Your task to perform on an android device: Clear the shopping cart on ebay. Image 0: 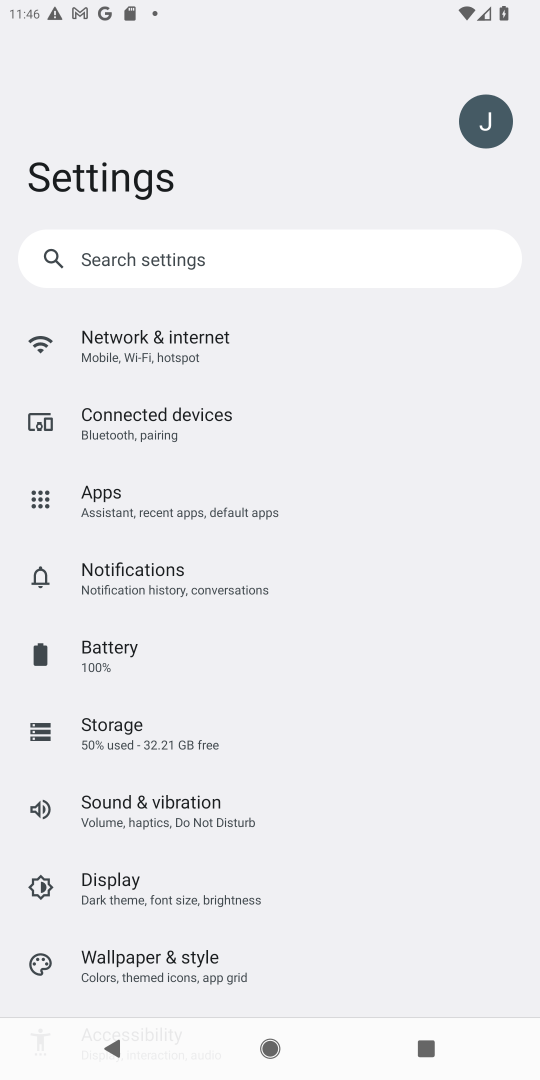
Step 0: press home button
Your task to perform on an android device: Clear the shopping cart on ebay. Image 1: 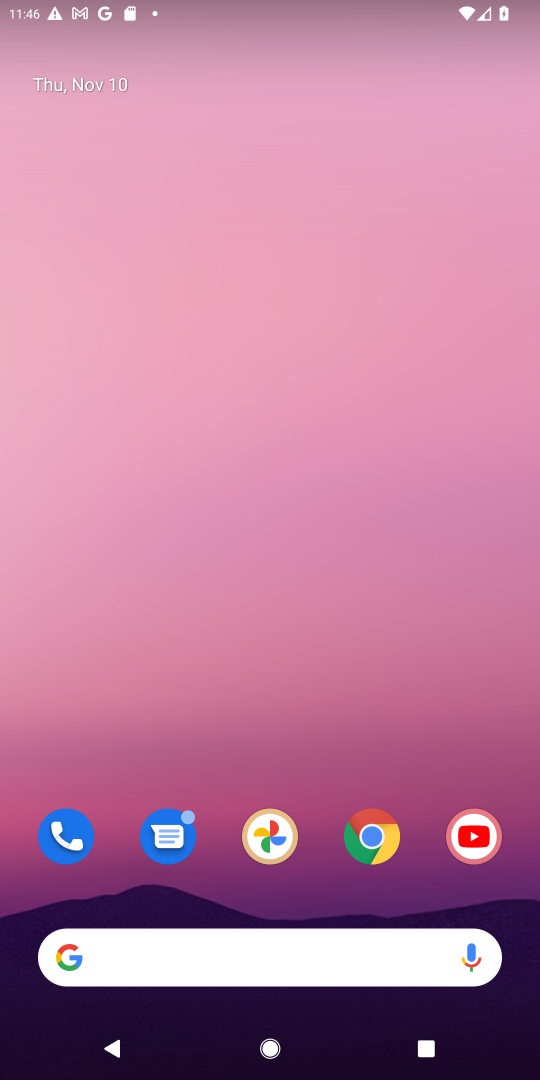
Step 1: click (271, 945)
Your task to perform on an android device: Clear the shopping cart on ebay. Image 2: 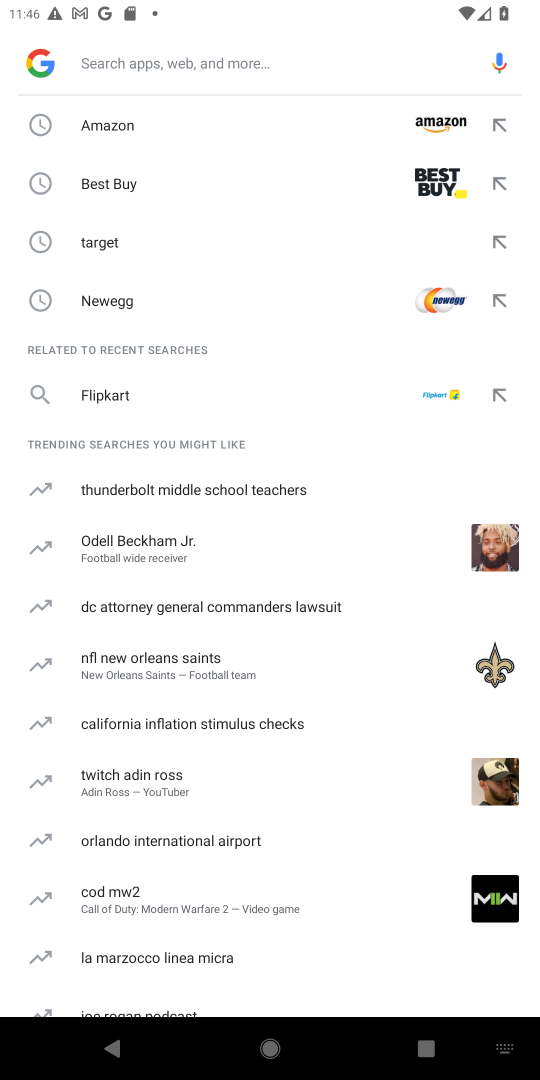
Step 2: type "ebay"
Your task to perform on an android device: Clear the shopping cart on ebay. Image 3: 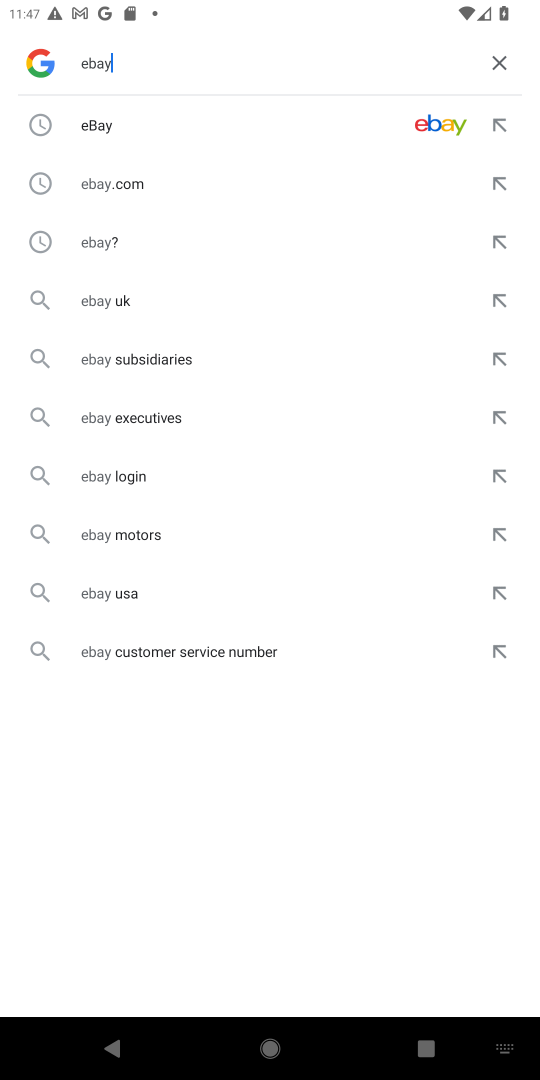
Step 3: click (329, 124)
Your task to perform on an android device: Clear the shopping cart on ebay. Image 4: 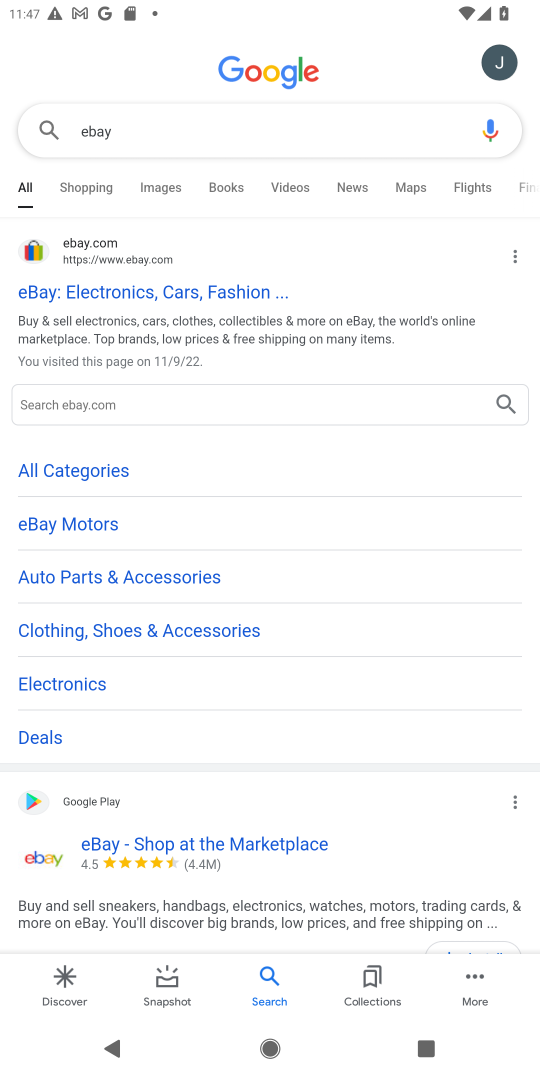
Step 4: click (100, 242)
Your task to perform on an android device: Clear the shopping cart on ebay. Image 5: 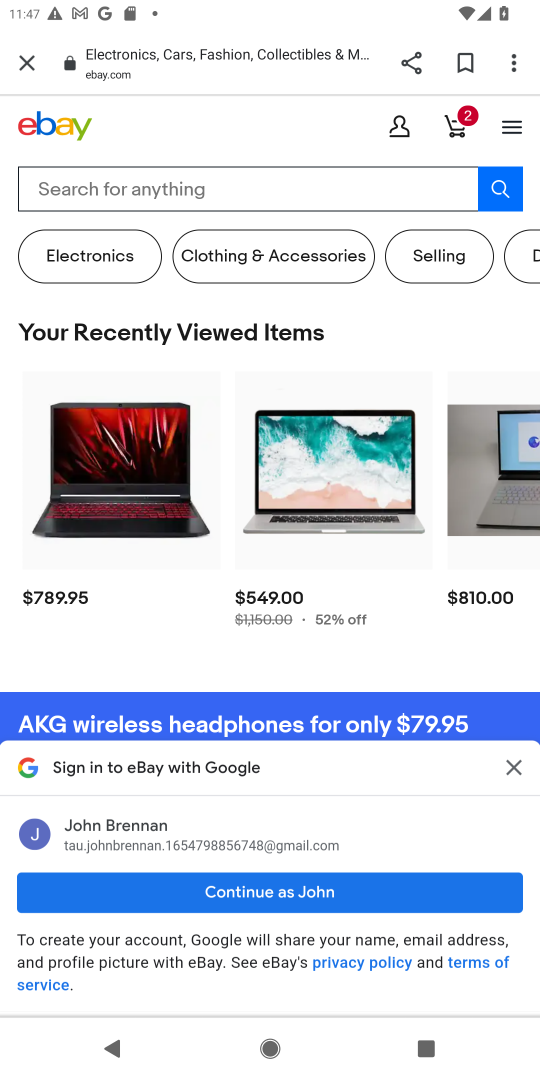
Step 5: click (459, 129)
Your task to perform on an android device: Clear the shopping cart on ebay. Image 6: 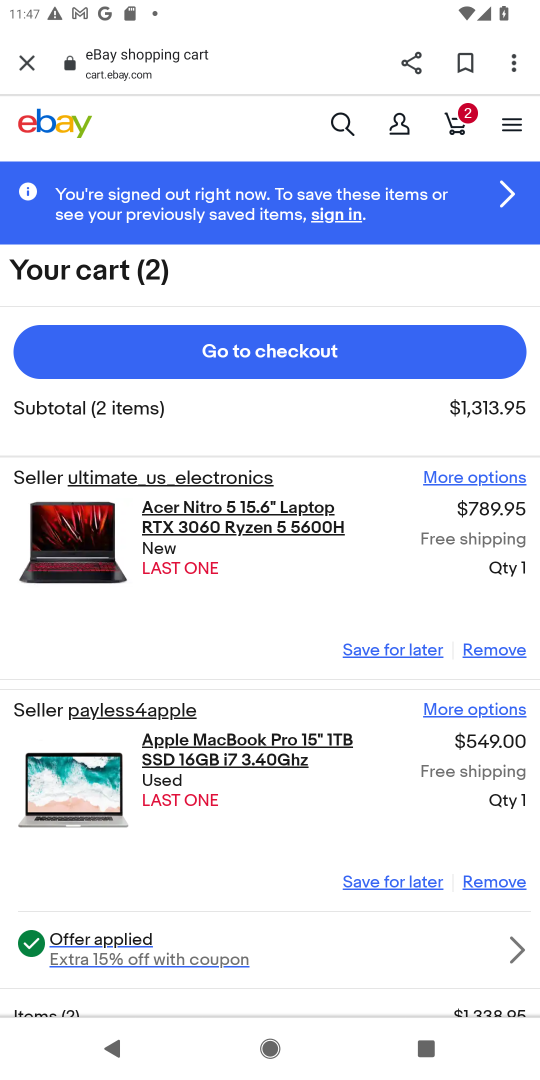
Step 6: click (493, 649)
Your task to perform on an android device: Clear the shopping cart on ebay. Image 7: 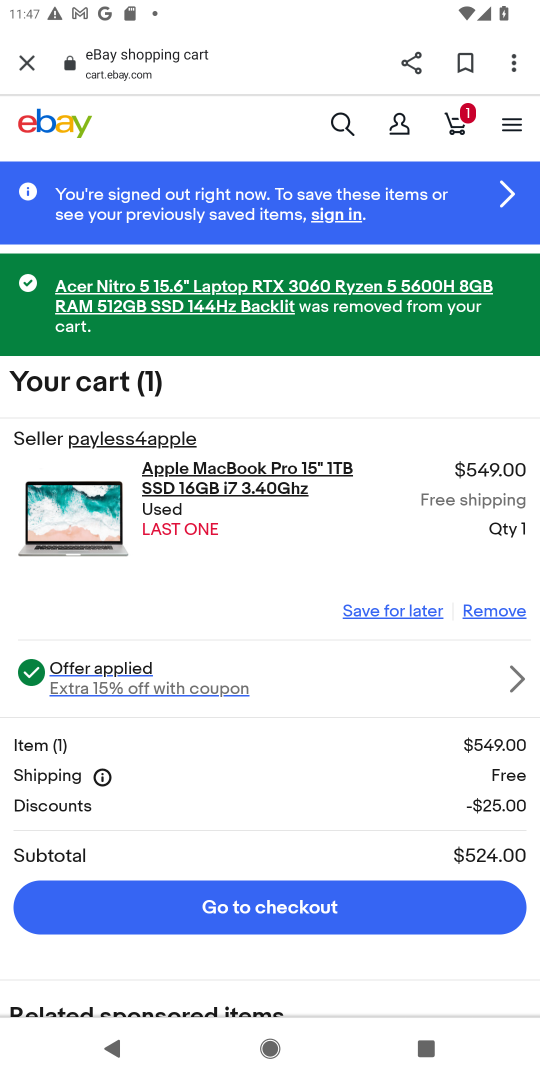
Step 7: click (493, 604)
Your task to perform on an android device: Clear the shopping cart on ebay. Image 8: 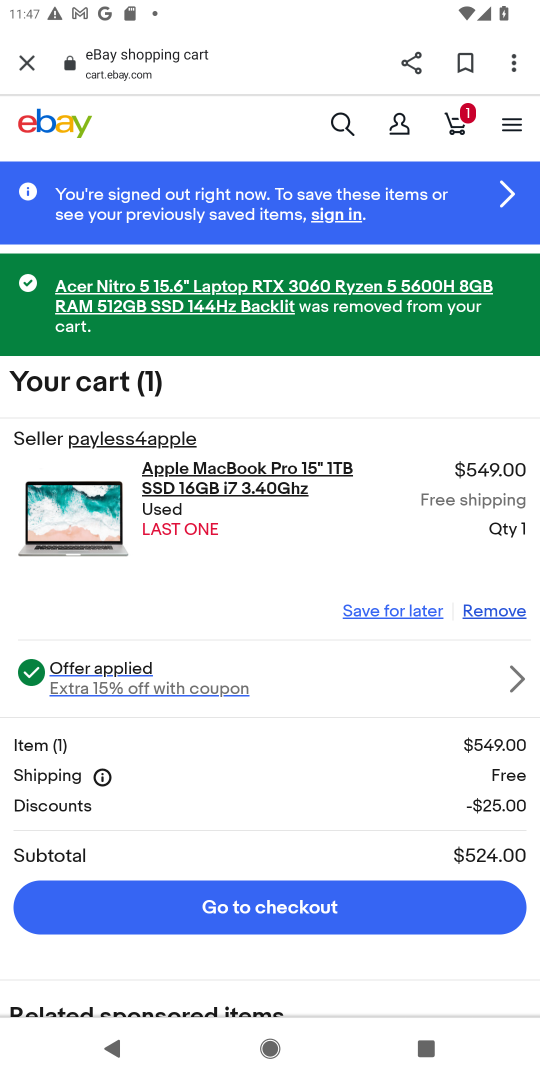
Step 8: click (476, 616)
Your task to perform on an android device: Clear the shopping cart on ebay. Image 9: 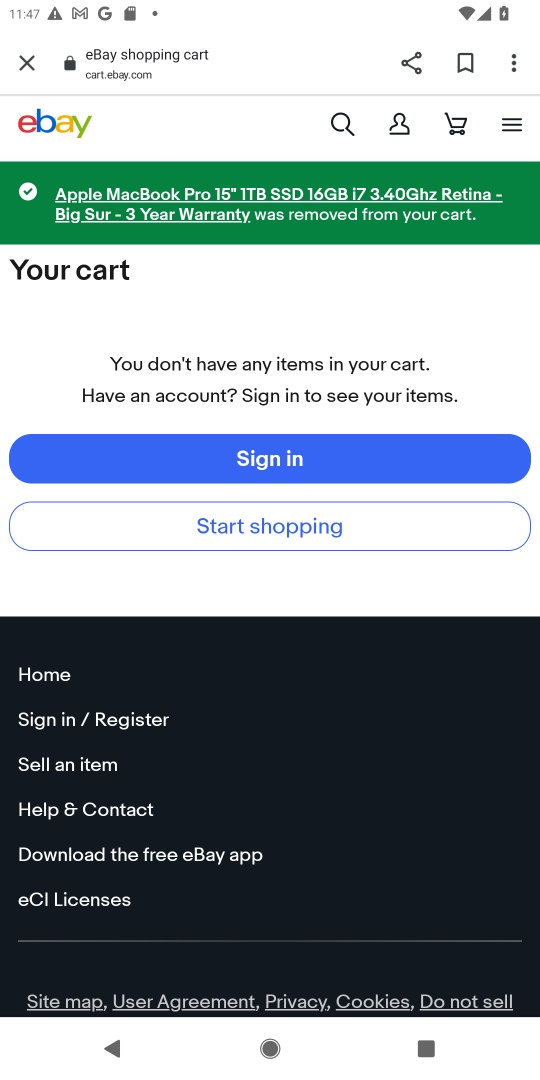
Step 9: task complete